Your task to perform on an android device: Open the calendar app, open the side menu, and click the "Day" option Image 0: 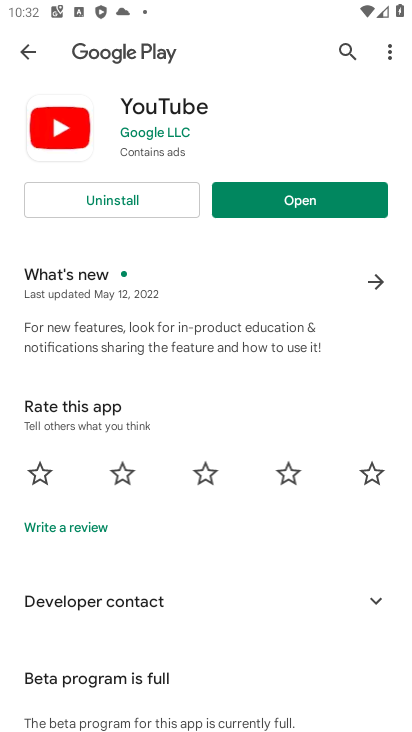
Step 0: press home button
Your task to perform on an android device: Open the calendar app, open the side menu, and click the "Day" option Image 1: 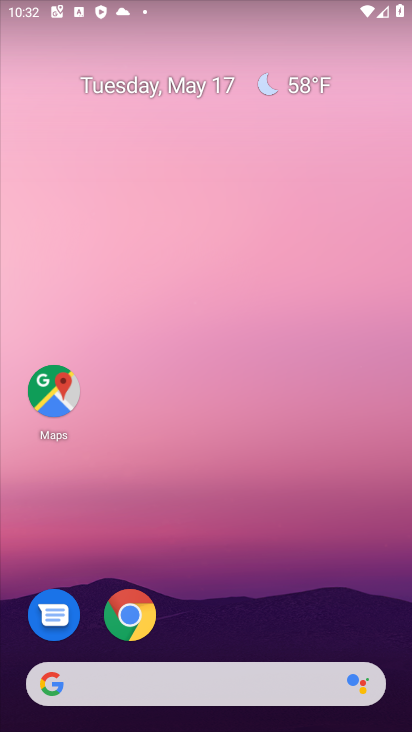
Step 1: drag from (373, 612) to (286, 38)
Your task to perform on an android device: Open the calendar app, open the side menu, and click the "Day" option Image 2: 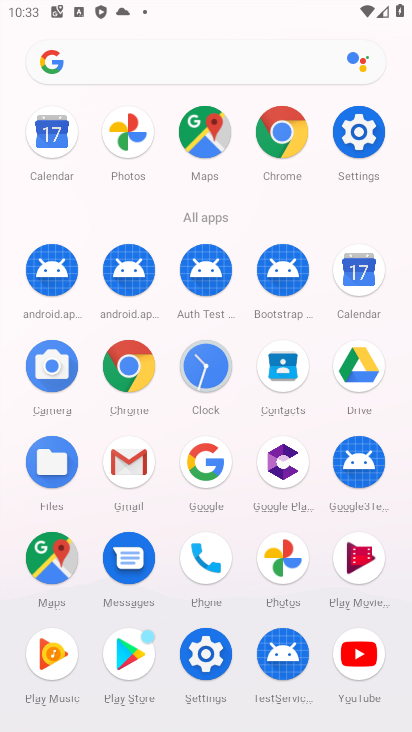
Step 2: click (368, 262)
Your task to perform on an android device: Open the calendar app, open the side menu, and click the "Day" option Image 3: 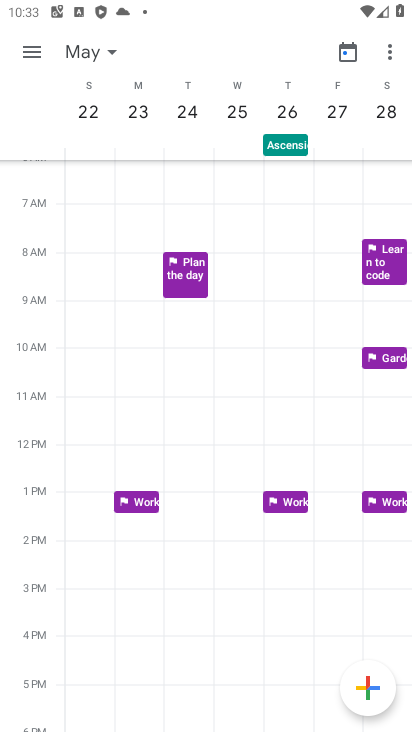
Step 3: click (30, 49)
Your task to perform on an android device: Open the calendar app, open the side menu, and click the "Day" option Image 4: 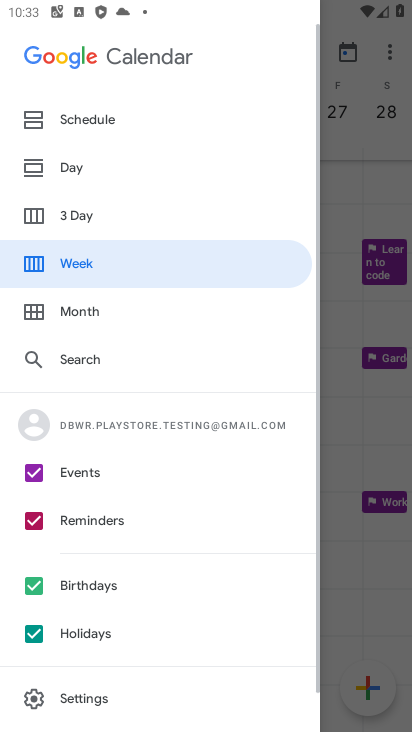
Step 4: click (68, 164)
Your task to perform on an android device: Open the calendar app, open the side menu, and click the "Day" option Image 5: 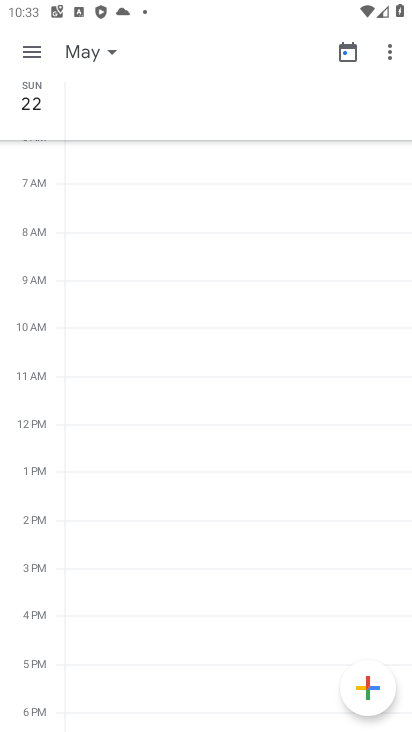
Step 5: task complete